Your task to perform on an android device: Search for seafood restaurants on Google Maps Image 0: 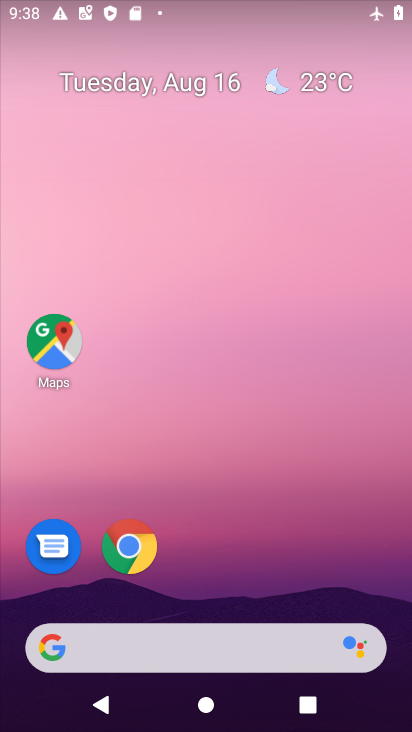
Step 0: click (49, 331)
Your task to perform on an android device: Search for seafood restaurants on Google Maps Image 1: 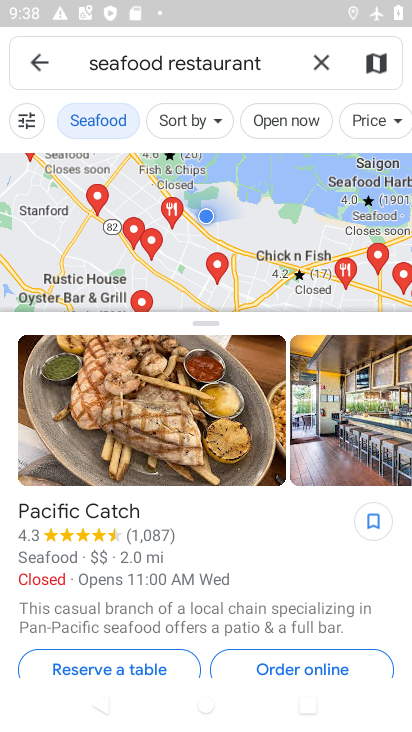
Step 1: task complete